Your task to perform on an android device: Go to sound settings Image 0: 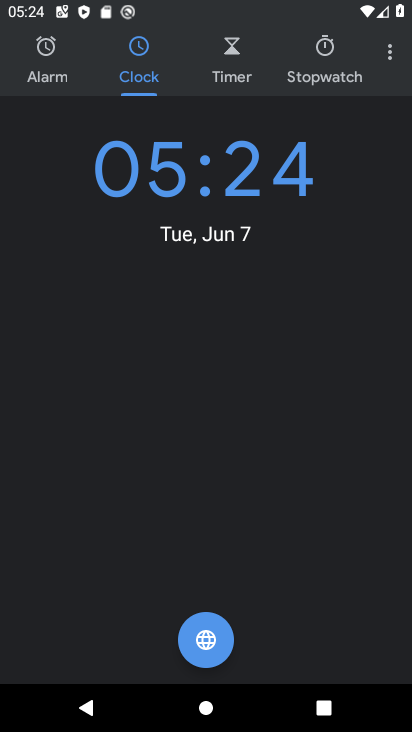
Step 0: press back button
Your task to perform on an android device: Go to sound settings Image 1: 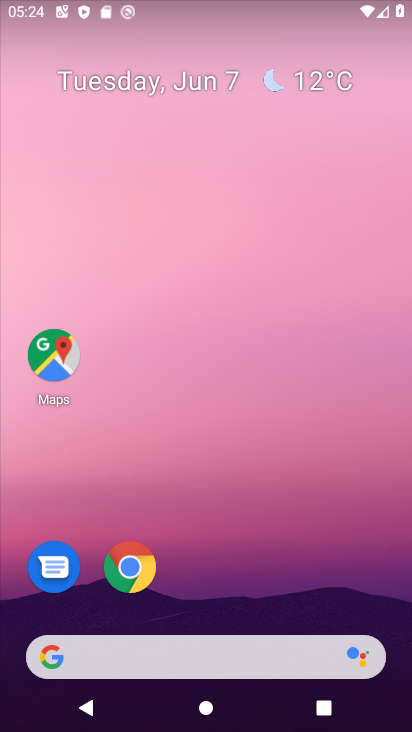
Step 1: drag from (239, 570) to (238, 37)
Your task to perform on an android device: Go to sound settings Image 2: 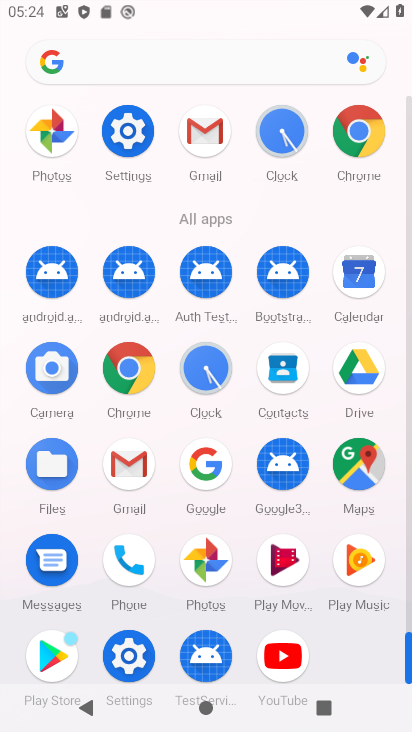
Step 2: click (131, 653)
Your task to perform on an android device: Go to sound settings Image 3: 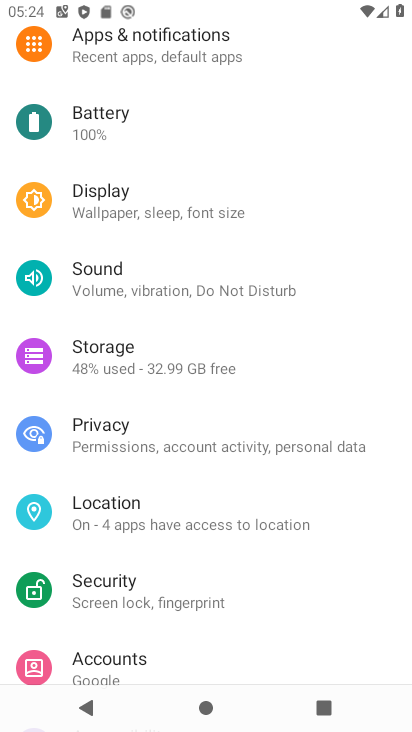
Step 3: click (125, 269)
Your task to perform on an android device: Go to sound settings Image 4: 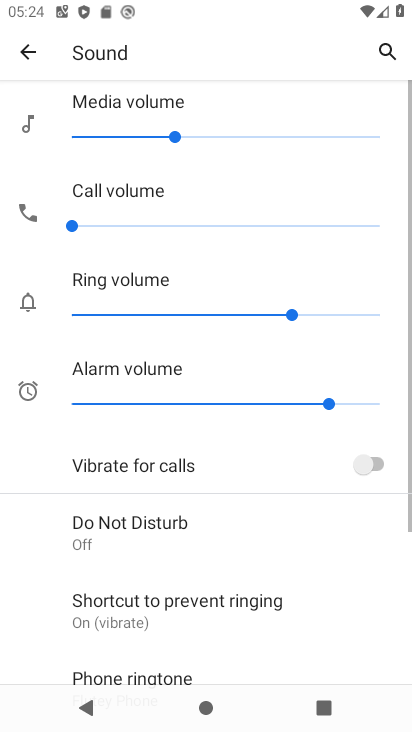
Step 4: drag from (243, 592) to (247, 82)
Your task to perform on an android device: Go to sound settings Image 5: 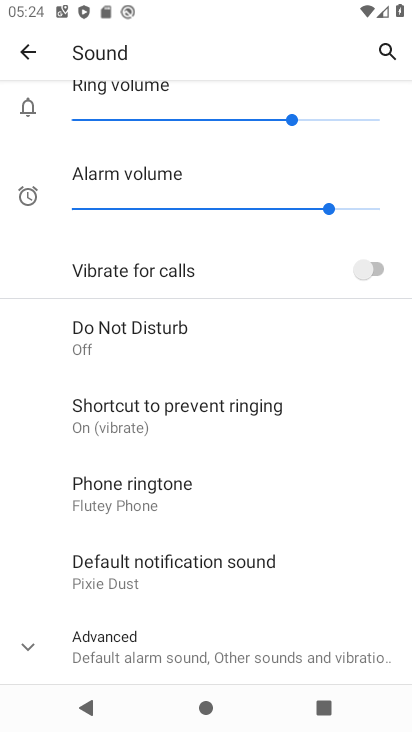
Step 5: drag from (247, 517) to (254, 164)
Your task to perform on an android device: Go to sound settings Image 6: 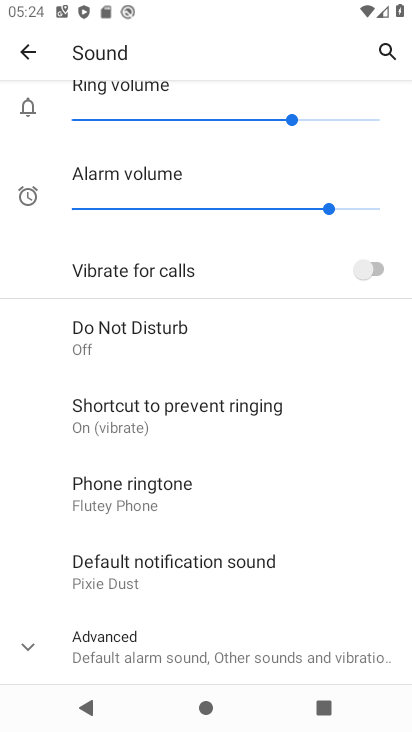
Step 6: click (38, 637)
Your task to perform on an android device: Go to sound settings Image 7: 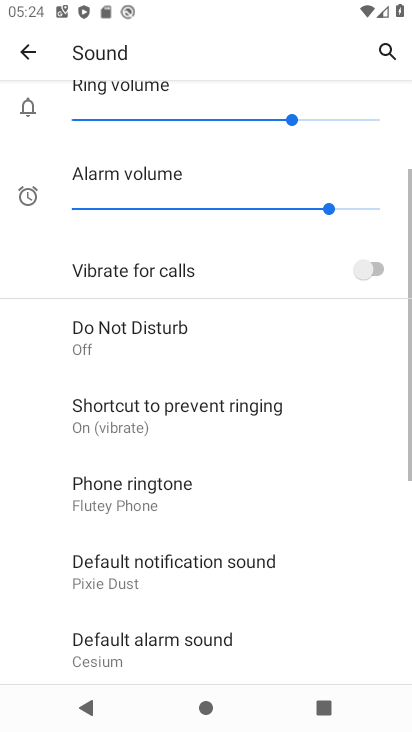
Step 7: task complete